Your task to perform on an android device: manage bookmarks in the chrome app Image 0: 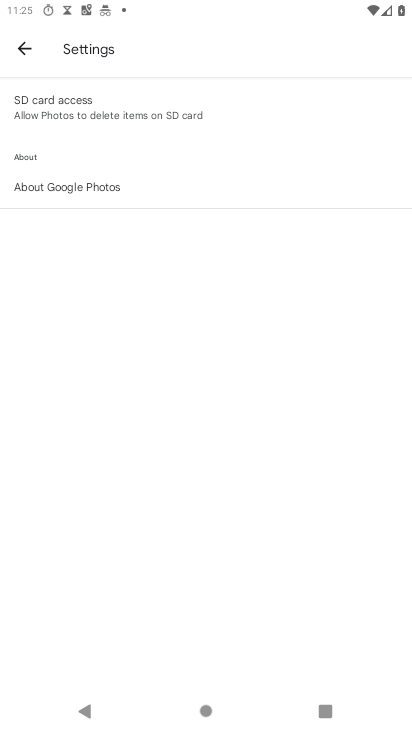
Step 0: press back button
Your task to perform on an android device: manage bookmarks in the chrome app Image 1: 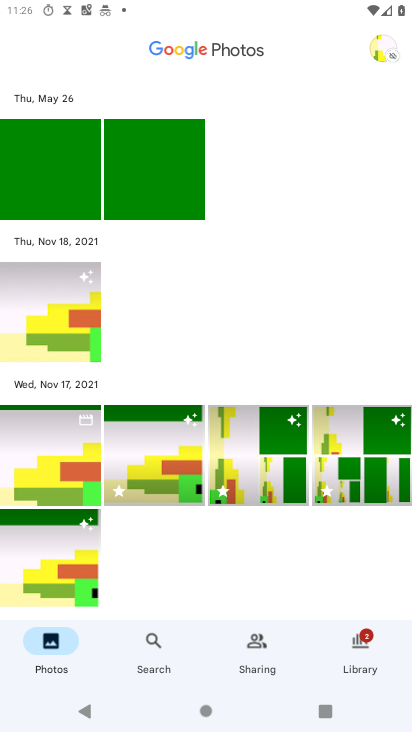
Step 1: press home button
Your task to perform on an android device: manage bookmarks in the chrome app Image 2: 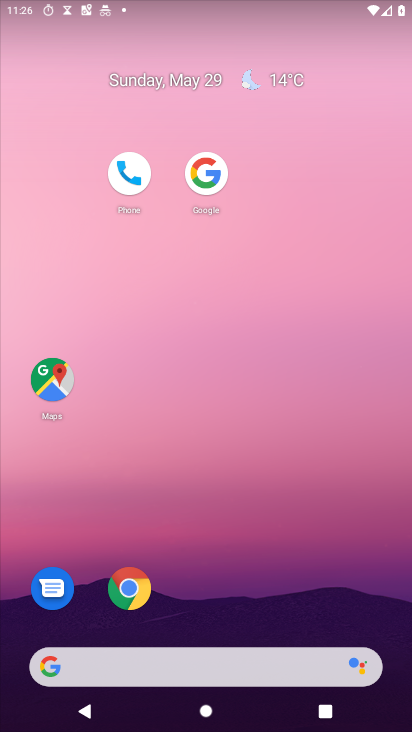
Step 2: drag from (258, 685) to (219, 163)
Your task to perform on an android device: manage bookmarks in the chrome app Image 3: 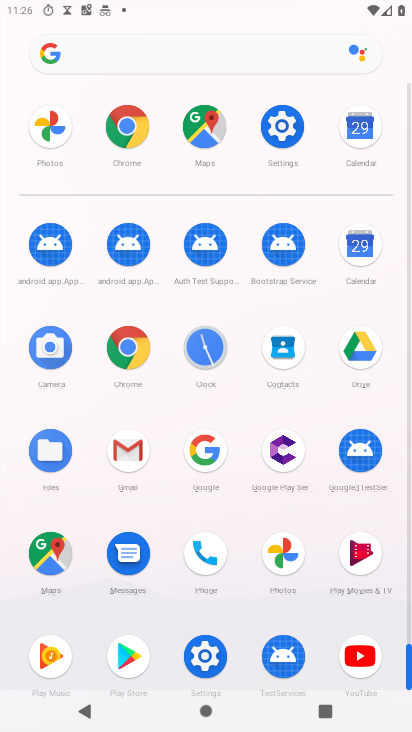
Step 3: click (124, 119)
Your task to perform on an android device: manage bookmarks in the chrome app Image 4: 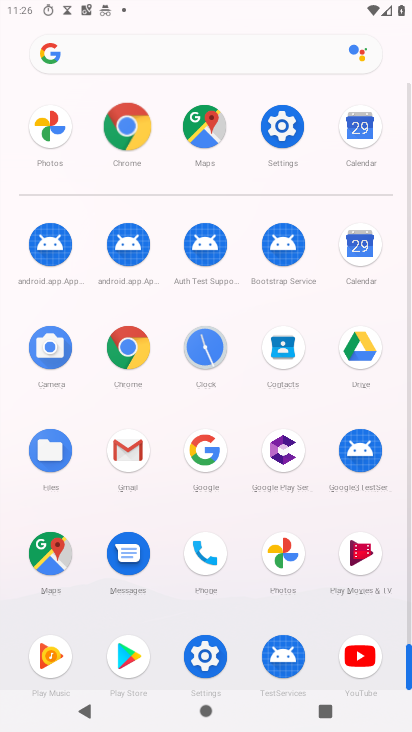
Step 4: click (124, 119)
Your task to perform on an android device: manage bookmarks in the chrome app Image 5: 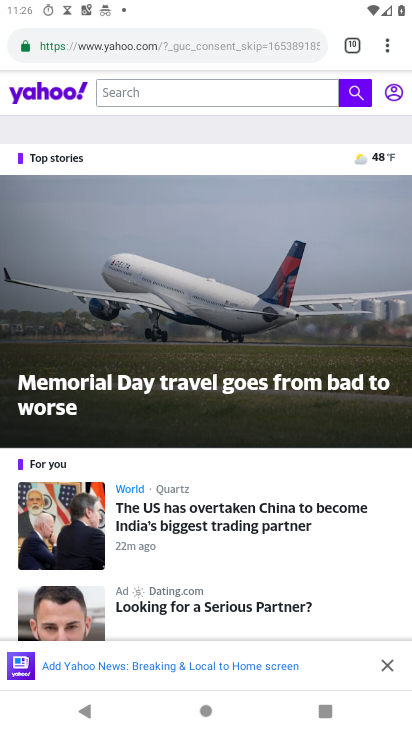
Step 5: drag from (389, 43) to (223, 167)
Your task to perform on an android device: manage bookmarks in the chrome app Image 6: 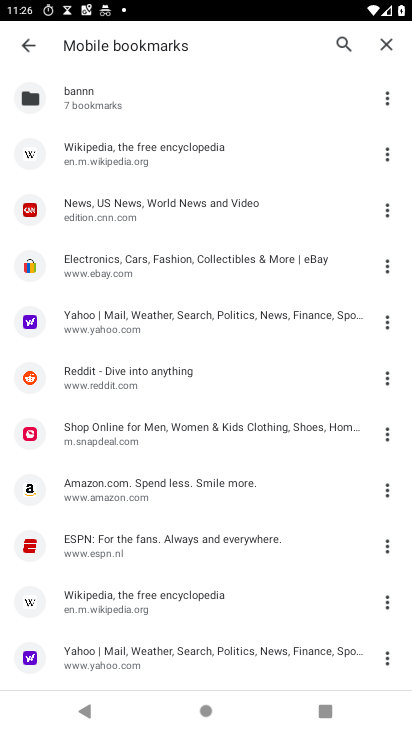
Step 6: click (384, 100)
Your task to perform on an android device: manage bookmarks in the chrome app Image 7: 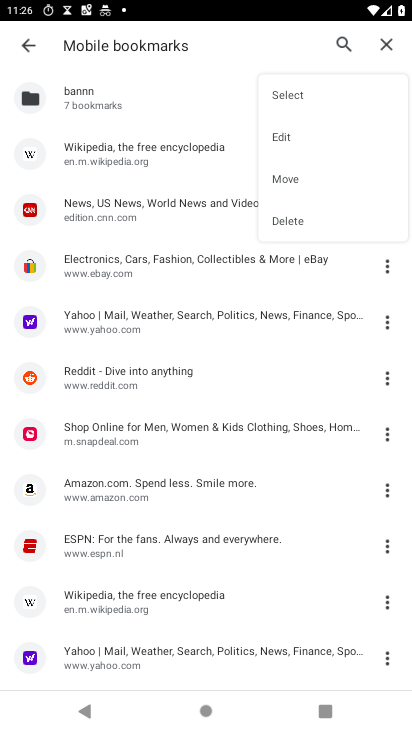
Step 7: click (295, 222)
Your task to perform on an android device: manage bookmarks in the chrome app Image 8: 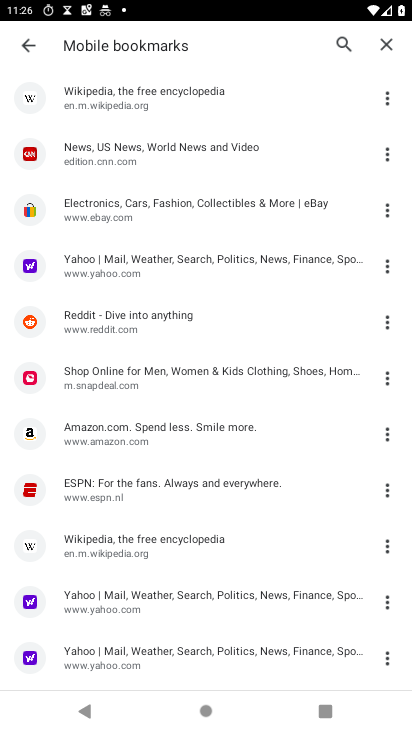
Step 8: task complete